Your task to perform on an android device: Set the phone to "Do not disturb". Image 0: 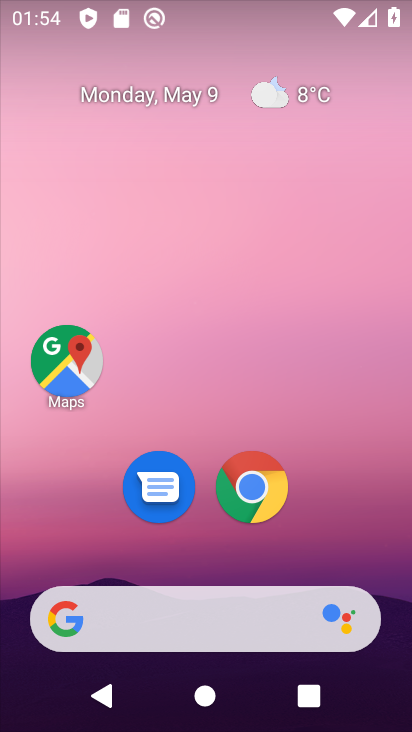
Step 0: drag from (281, 10) to (292, 457)
Your task to perform on an android device: Set the phone to "Do not disturb". Image 1: 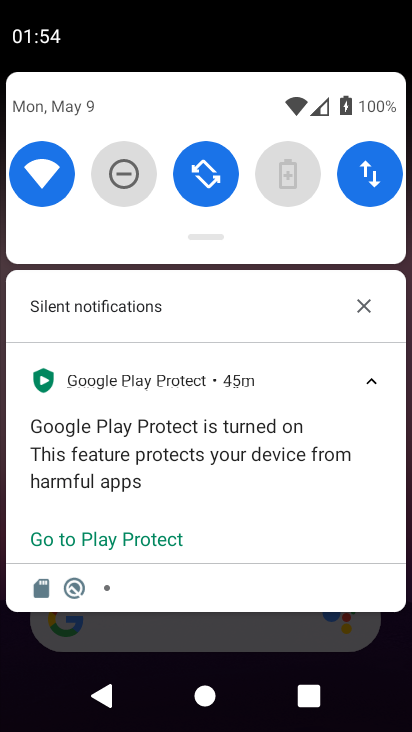
Step 1: click (112, 161)
Your task to perform on an android device: Set the phone to "Do not disturb". Image 2: 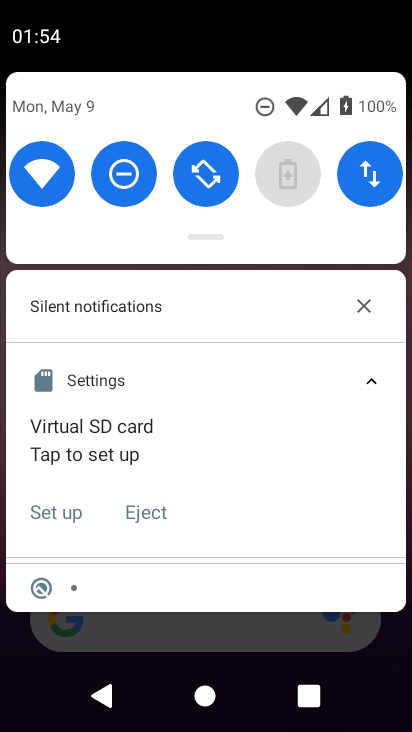
Step 2: task complete